Your task to perform on an android device: check out phone information Image 0: 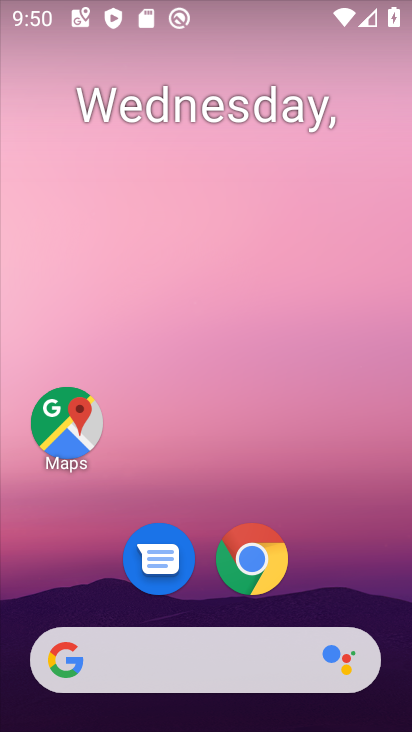
Step 0: drag from (356, 547) to (301, 46)
Your task to perform on an android device: check out phone information Image 1: 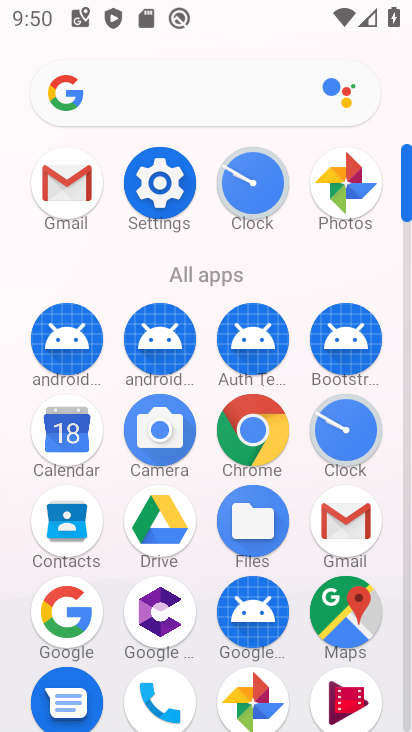
Step 1: drag from (195, 567) to (206, 339)
Your task to perform on an android device: check out phone information Image 2: 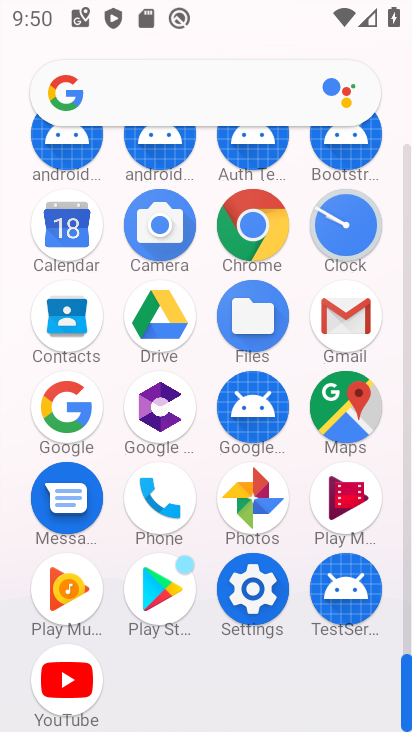
Step 2: click (175, 484)
Your task to perform on an android device: check out phone information Image 3: 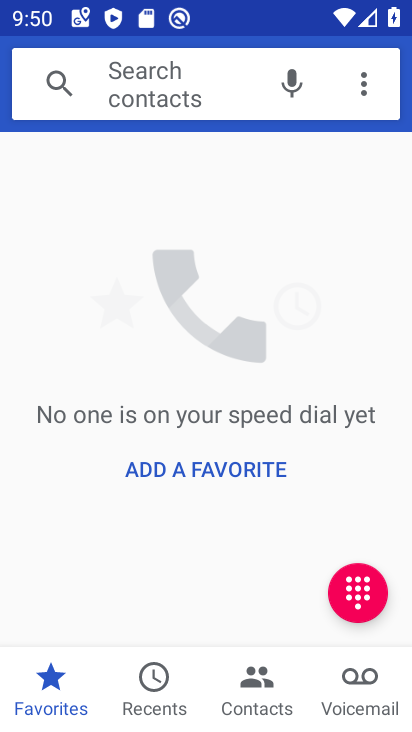
Step 3: click (359, 80)
Your task to perform on an android device: check out phone information Image 4: 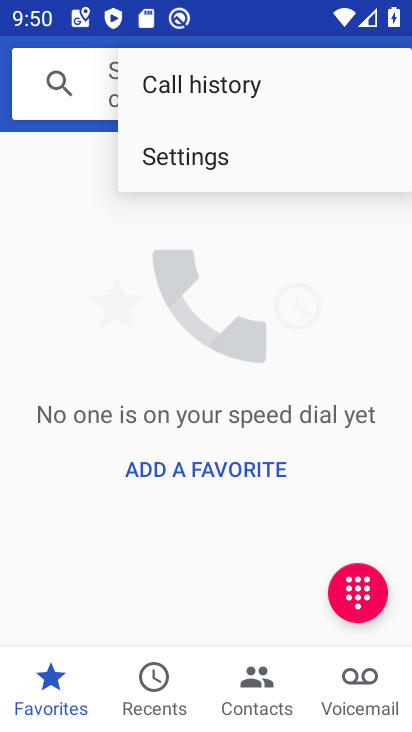
Step 4: click (272, 164)
Your task to perform on an android device: check out phone information Image 5: 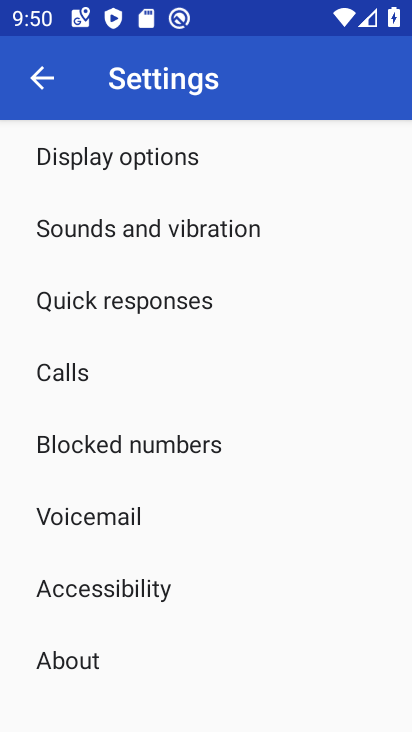
Step 5: click (91, 649)
Your task to perform on an android device: check out phone information Image 6: 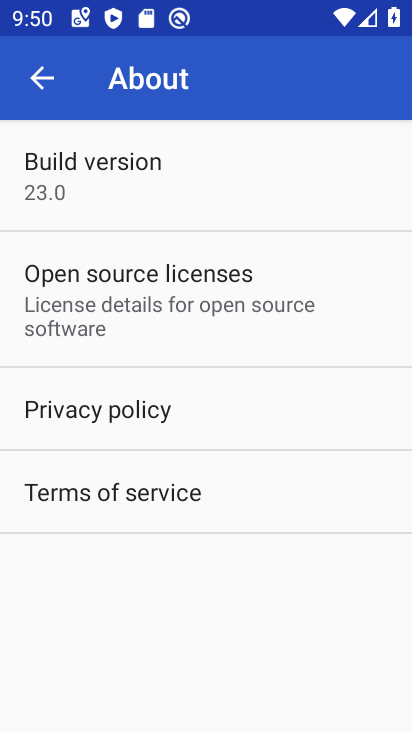
Step 6: task complete